Your task to perform on an android device: Open the stopwatch Image 0: 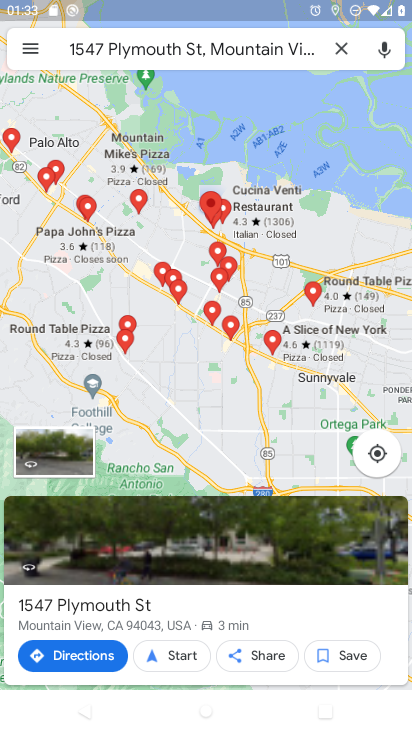
Step 0: press home button
Your task to perform on an android device: Open the stopwatch Image 1: 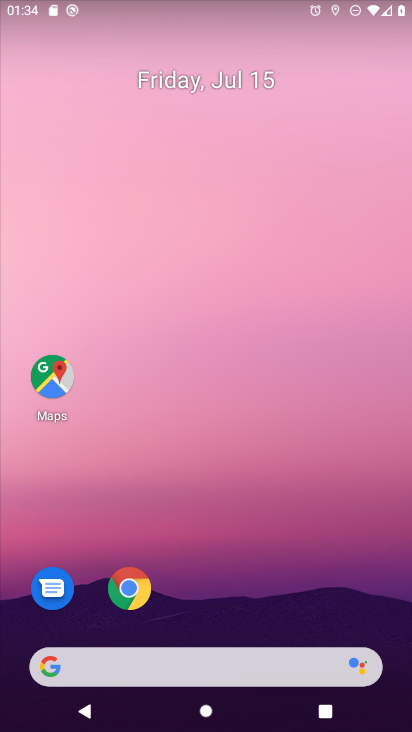
Step 1: drag from (393, 663) to (329, 166)
Your task to perform on an android device: Open the stopwatch Image 2: 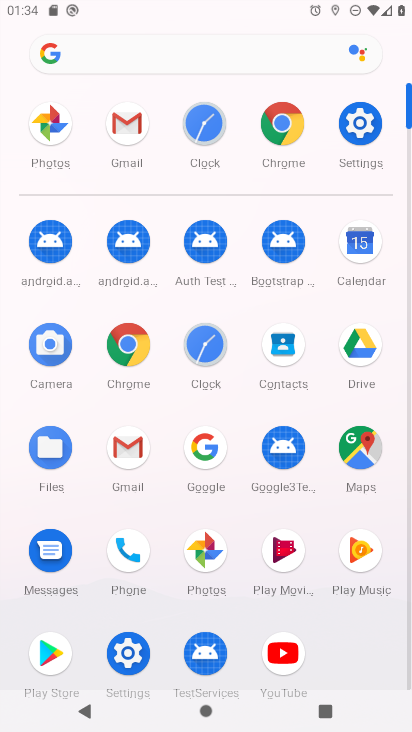
Step 2: click (205, 347)
Your task to perform on an android device: Open the stopwatch Image 3: 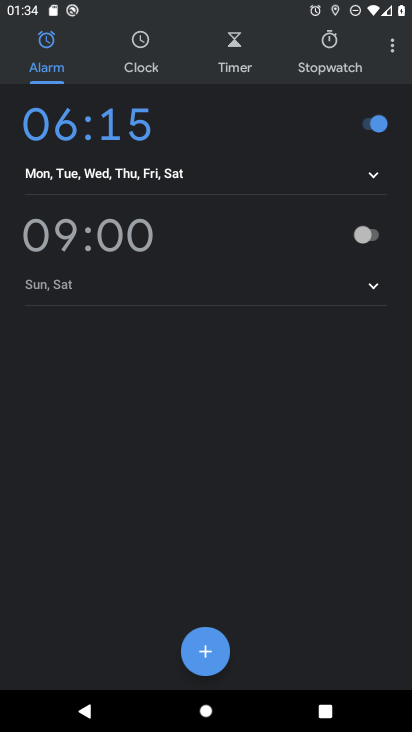
Step 3: click (330, 42)
Your task to perform on an android device: Open the stopwatch Image 4: 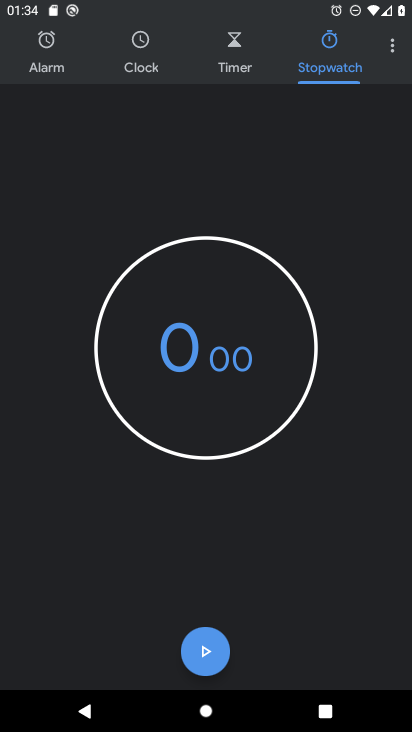
Step 4: task complete